Your task to perform on an android device: See recent photos Image 0: 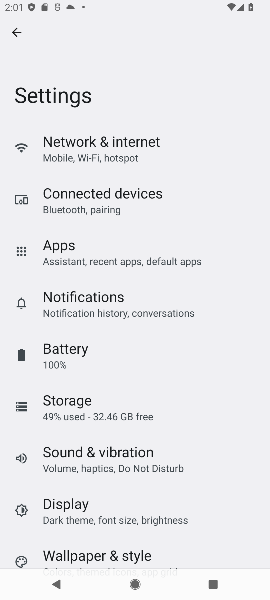
Step 0: press home button
Your task to perform on an android device: See recent photos Image 1: 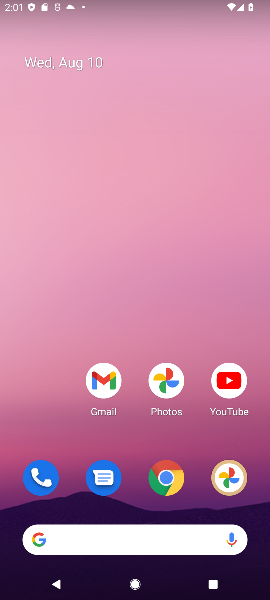
Step 1: click (164, 389)
Your task to perform on an android device: See recent photos Image 2: 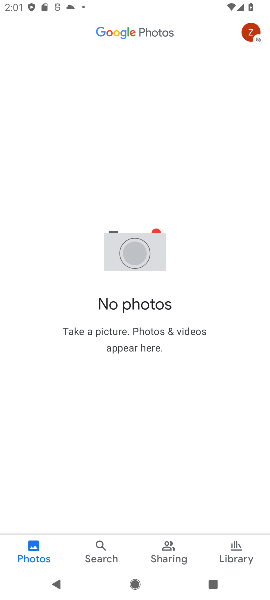
Step 2: task complete